Your task to perform on an android device: Go to network settings Image 0: 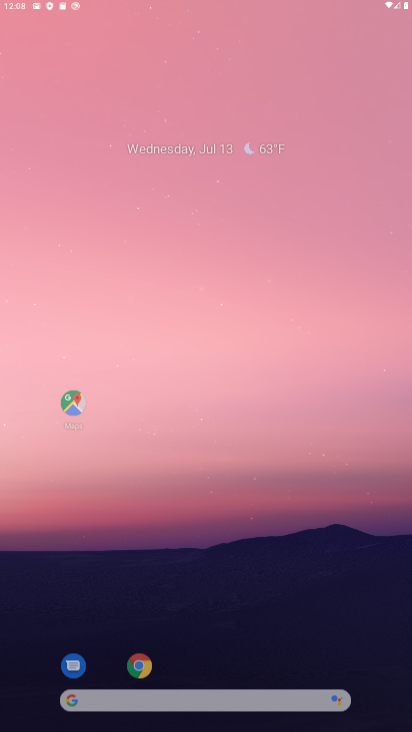
Step 0: press home button
Your task to perform on an android device: Go to network settings Image 1: 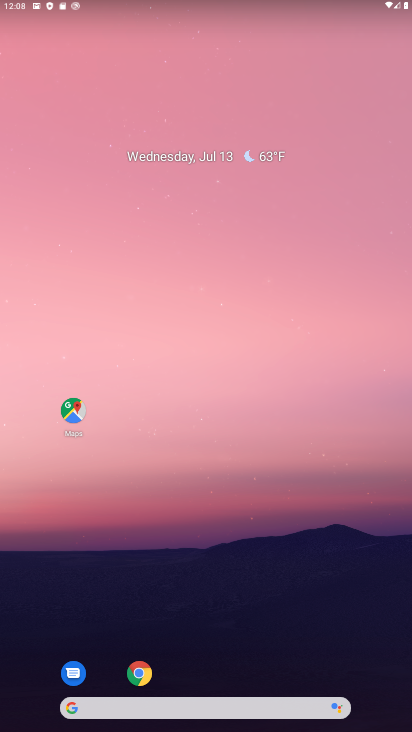
Step 1: drag from (214, 578) to (246, 172)
Your task to perform on an android device: Go to network settings Image 2: 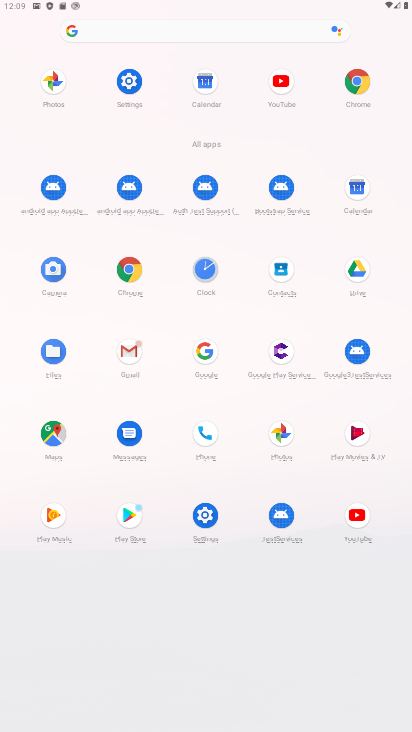
Step 2: click (215, 517)
Your task to perform on an android device: Go to network settings Image 3: 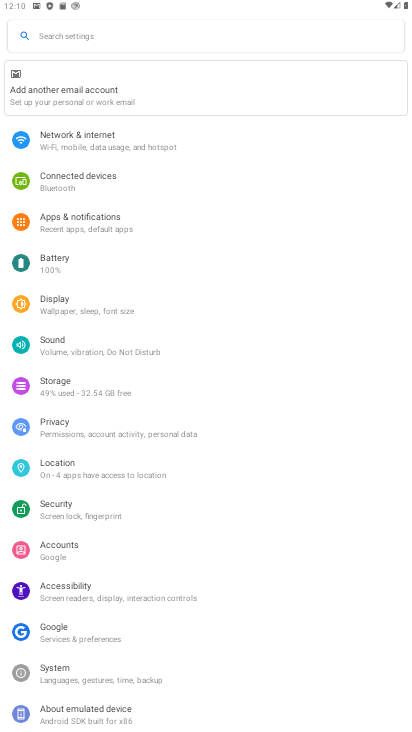
Step 3: click (112, 133)
Your task to perform on an android device: Go to network settings Image 4: 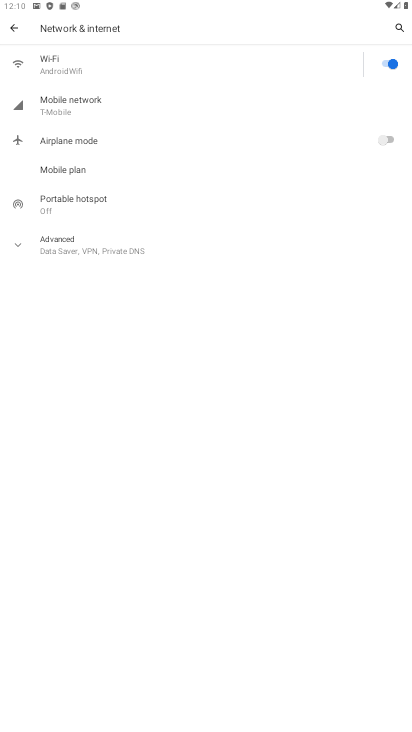
Step 4: task complete